Your task to perform on an android device: open chrome and create a bookmark for the current page Image 0: 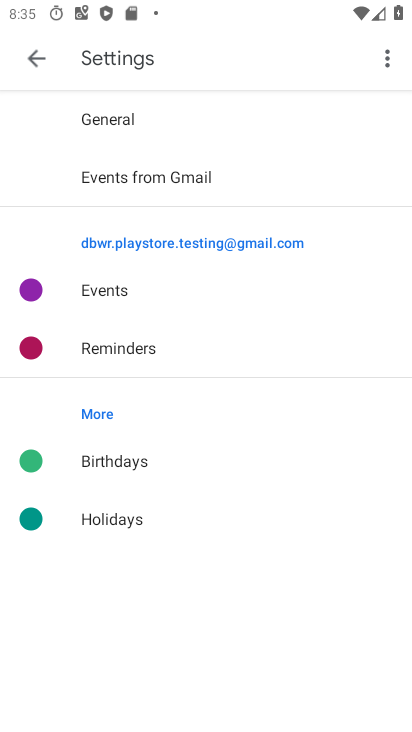
Step 0: press back button
Your task to perform on an android device: open chrome and create a bookmark for the current page Image 1: 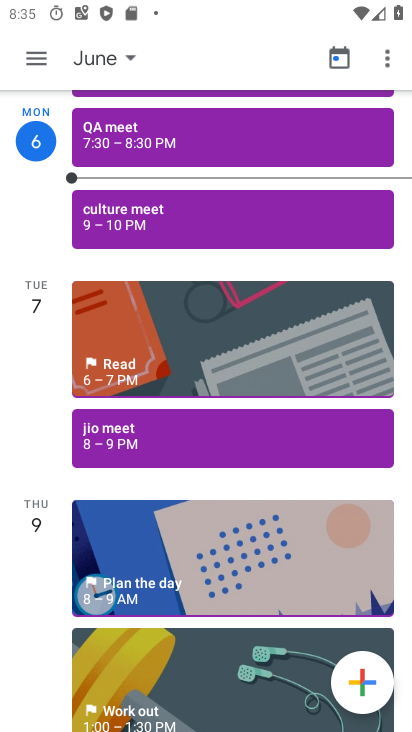
Step 1: press home button
Your task to perform on an android device: open chrome and create a bookmark for the current page Image 2: 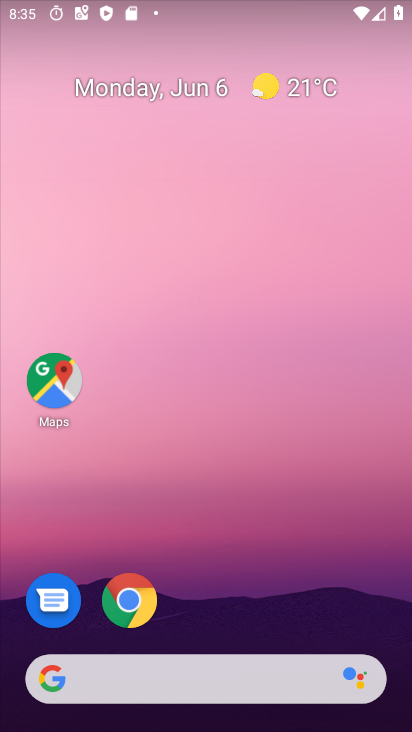
Step 2: drag from (263, 569) to (229, 16)
Your task to perform on an android device: open chrome and create a bookmark for the current page Image 3: 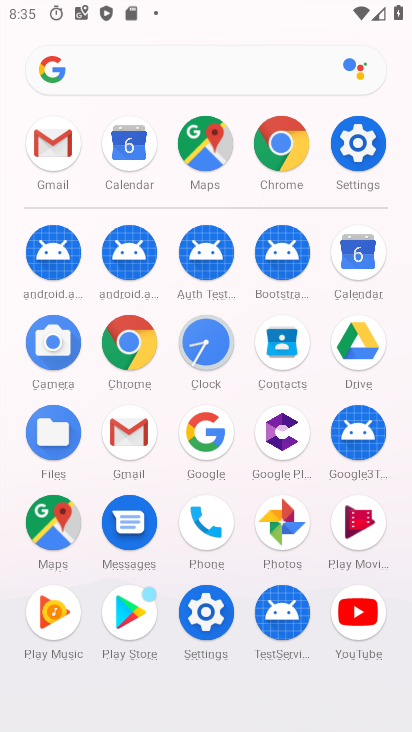
Step 3: click (279, 142)
Your task to perform on an android device: open chrome and create a bookmark for the current page Image 4: 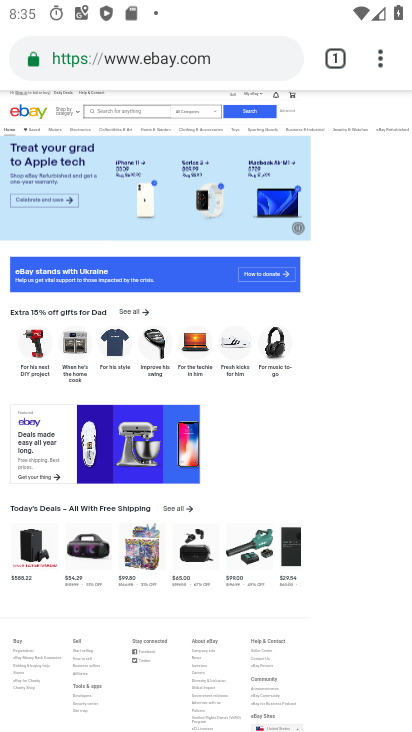
Step 4: task complete